Your task to perform on an android device: find snoozed emails in the gmail app Image 0: 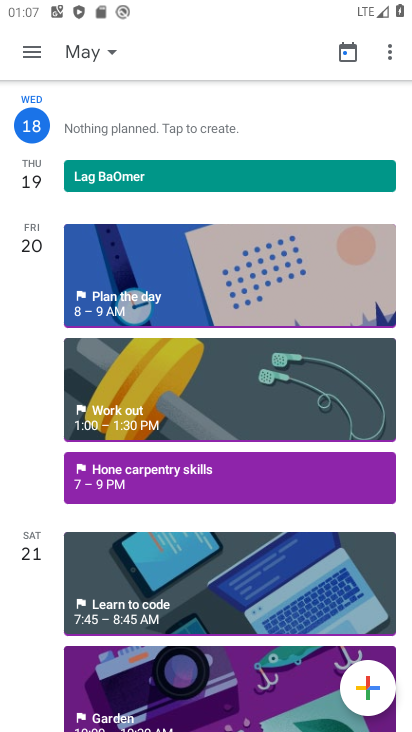
Step 0: press home button
Your task to perform on an android device: find snoozed emails in the gmail app Image 1: 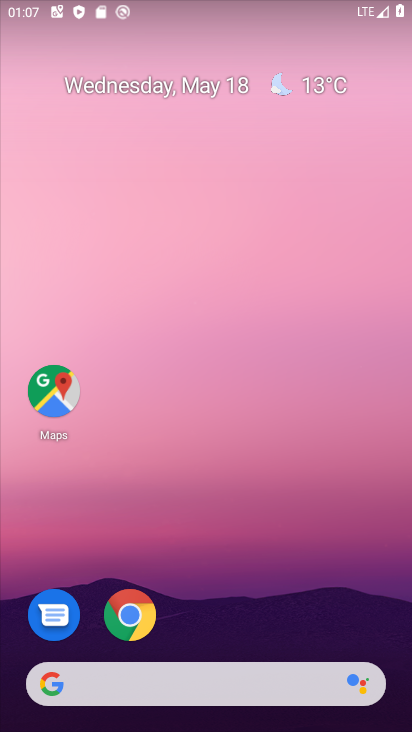
Step 1: drag from (139, 675) to (292, 231)
Your task to perform on an android device: find snoozed emails in the gmail app Image 2: 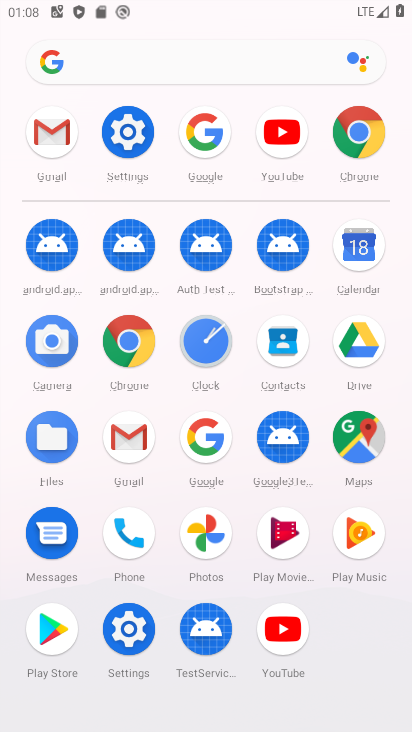
Step 2: click (55, 135)
Your task to perform on an android device: find snoozed emails in the gmail app Image 3: 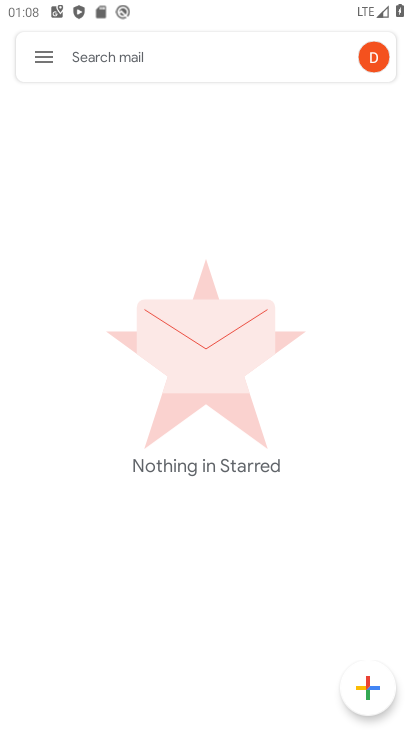
Step 3: click (41, 56)
Your task to perform on an android device: find snoozed emails in the gmail app Image 4: 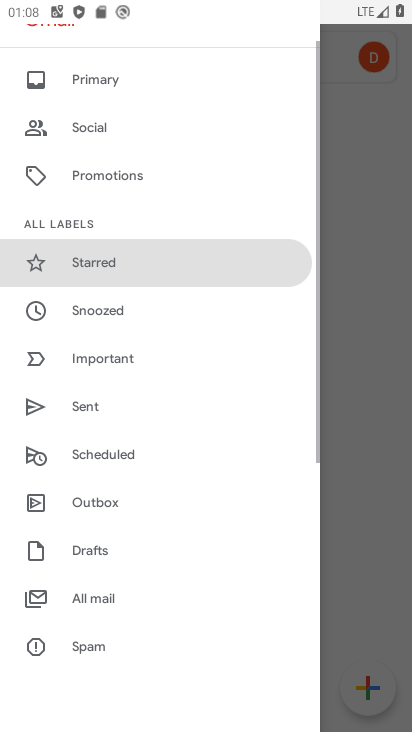
Step 4: click (118, 306)
Your task to perform on an android device: find snoozed emails in the gmail app Image 5: 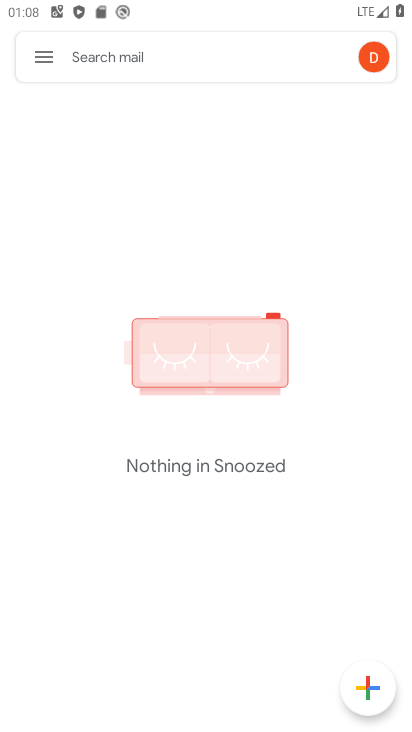
Step 5: task complete